Your task to perform on an android device: change notifications settings Image 0: 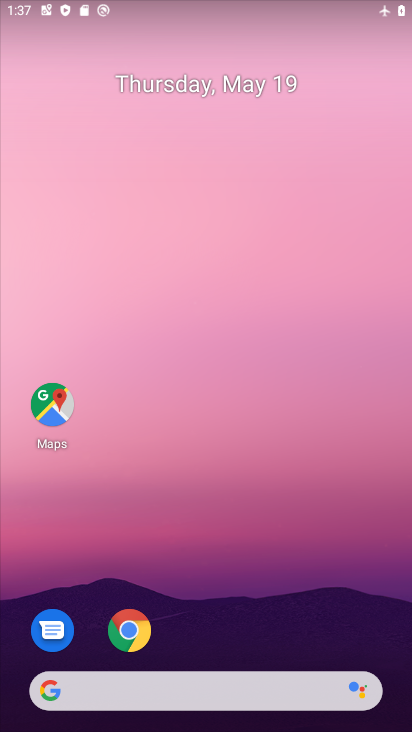
Step 0: drag from (220, 666) to (257, 34)
Your task to perform on an android device: change notifications settings Image 1: 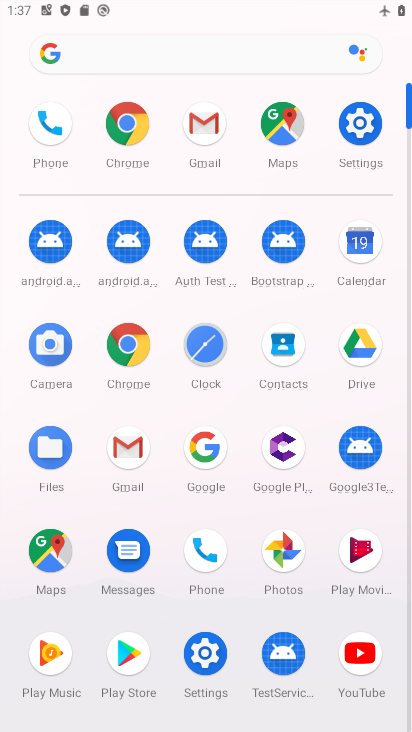
Step 1: click (348, 128)
Your task to perform on an android device: change notifications settings Image 2: 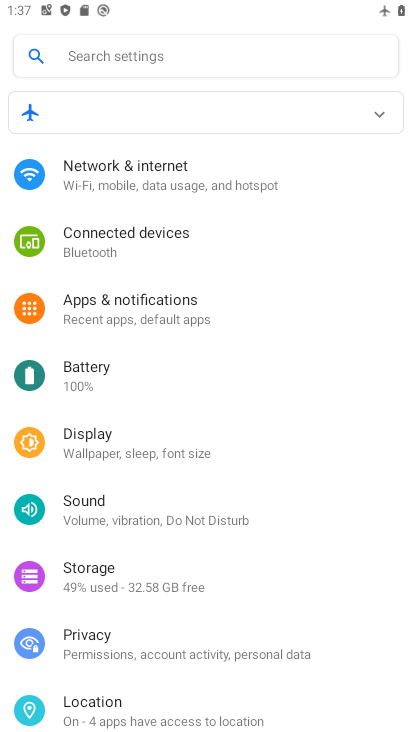
Step 2: drag from (172, 689) to (155, 464)
Your task to perform on an android device: change notifications settings Image 3: 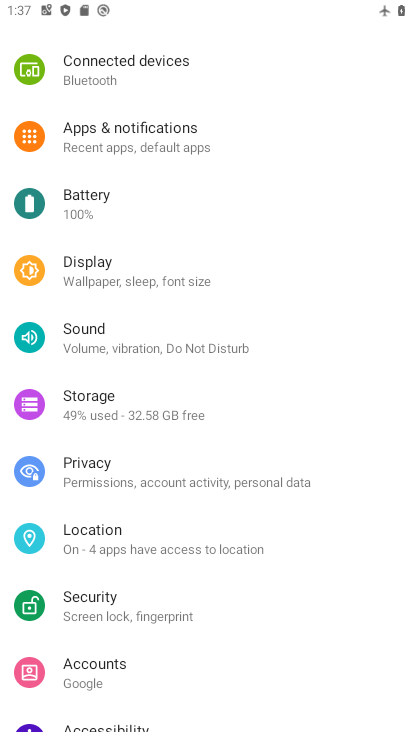
Step 3: click (108, 142)
Your task to perform on an android device: change notifications settings Image 4: 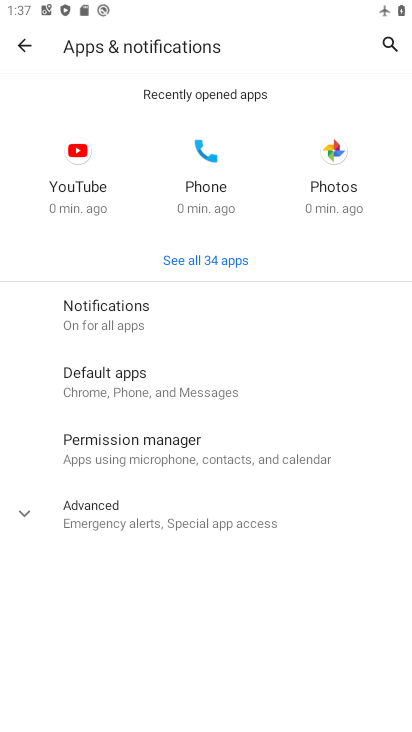
Step 4: click (109, 296)
Your task to perform on an android device: change notifications settings Image 5: 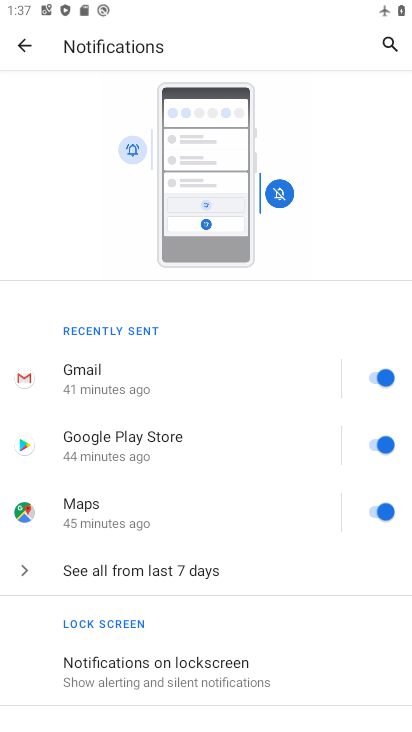
Step 5: click (122, 579)
Your task to perform on an android device: change notifications settings Image 6: 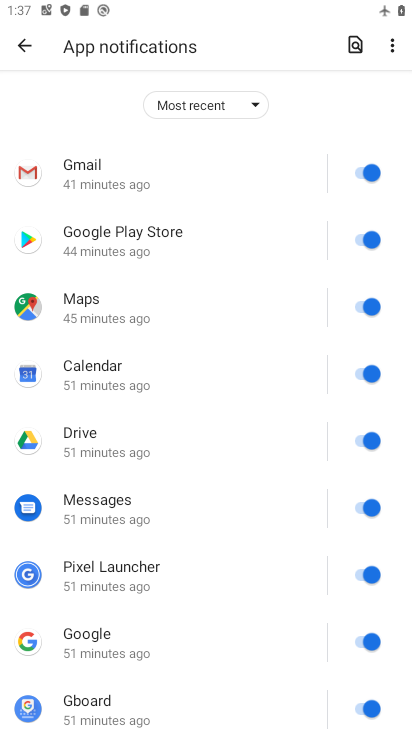
Step 6: click (201, 101)
Your task to perform on an android device: change notifications settings Image 7: 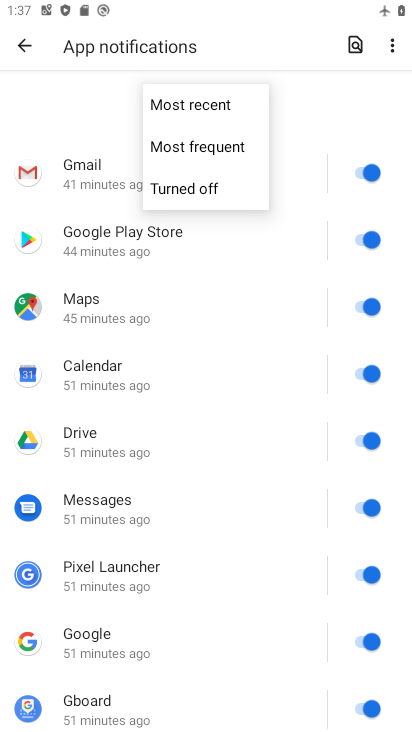
Step 7: click (201, 190)
Your task to perform on an android device: change notifications settings Image 8: 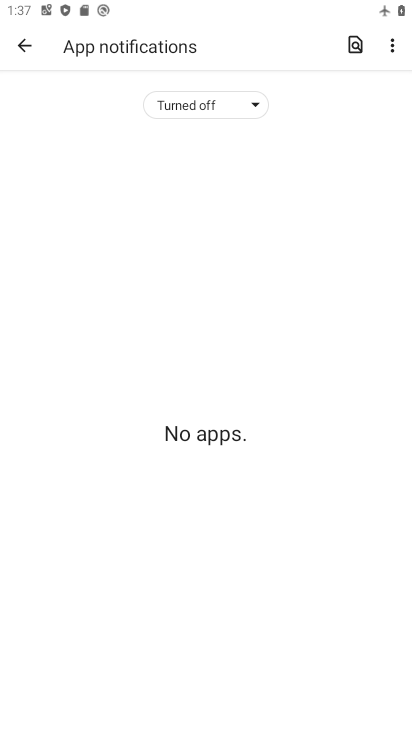
Step 8: task complete